Your task to perform on an android device: Turn off the flashlight Image 0: 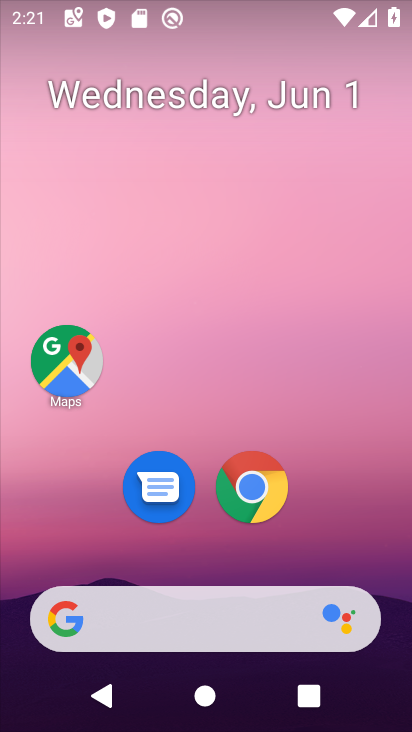
Step 0: drag from (259, 2) to (250, 378)
Your task to perform on an android device: Turn off the flashlight Image 1: 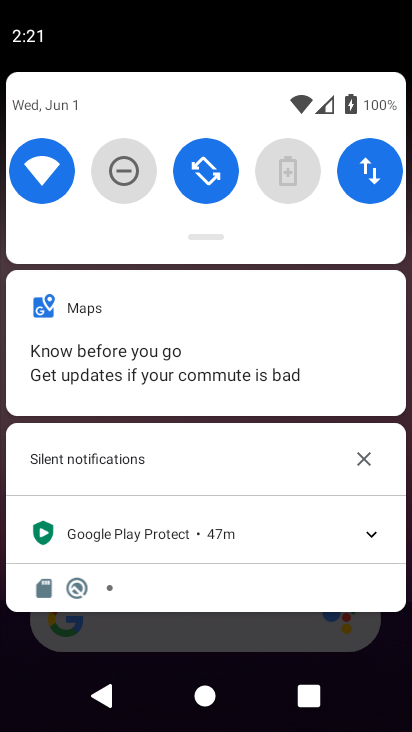
Step 1: drag from (247, 95) to (255, 375)
Your task to perform on an android device: Turn off the flashlight Image 2: 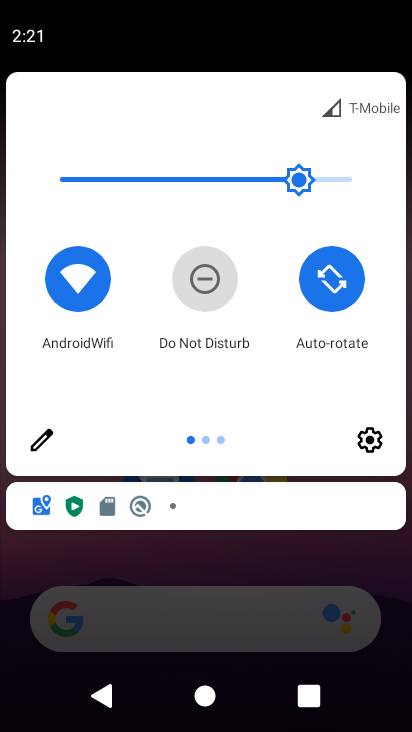
Step 2: click (34, 440)
Your task to perform on an android device: Turn off the flashlight Image 3: 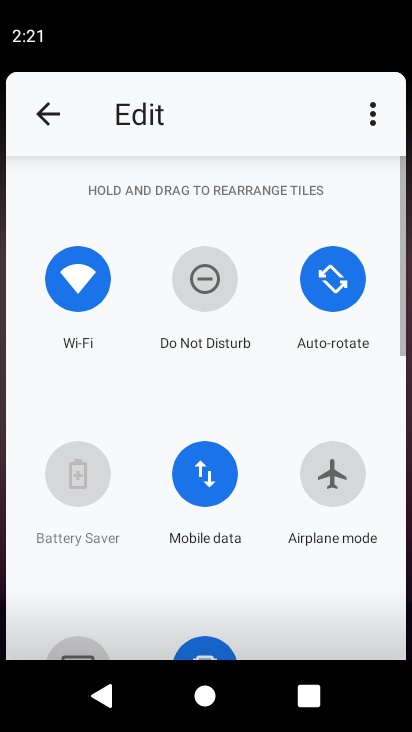
Step 3: task complete